Your task to perform on an android device: open app "Google Find My Device" Image 0: 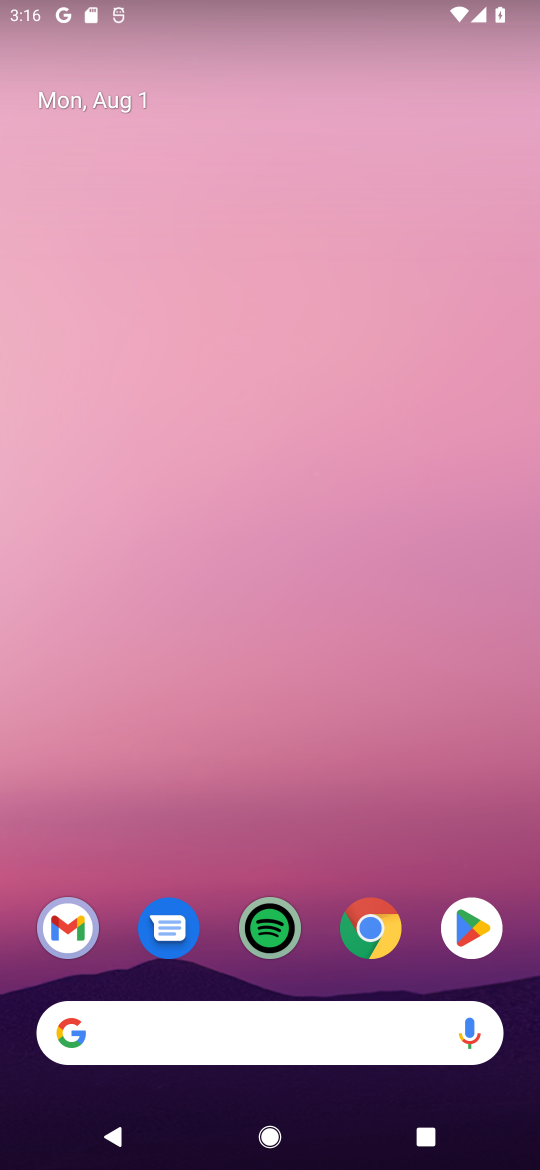
Step 0: press home button
Your task to perform on an android device: open app "Google Find My Device" Image 1: 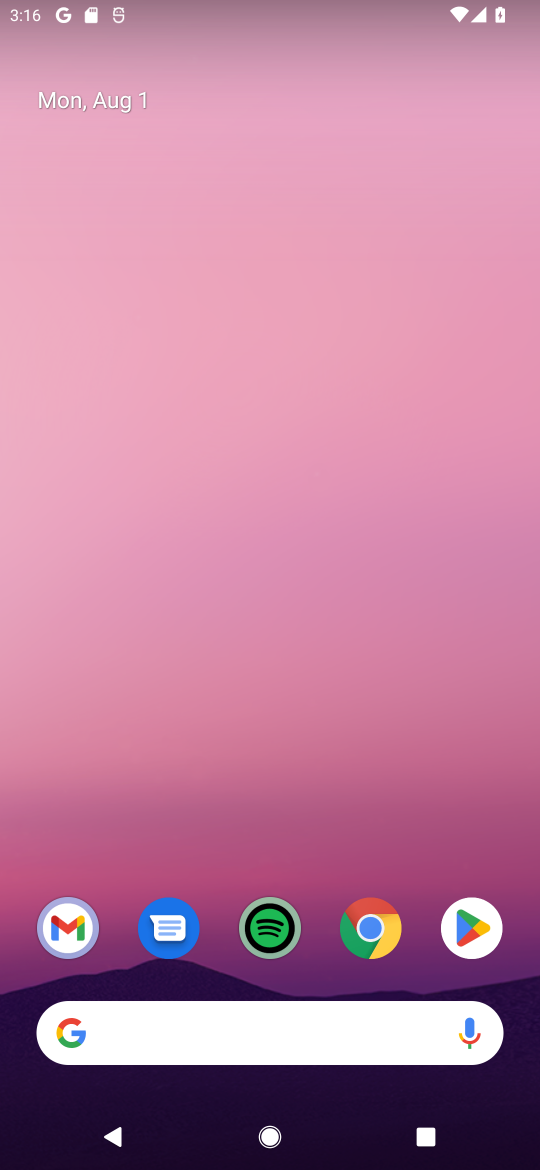
Step 1: click (457, 936)
Your task to perform on an android device: open app "Google Find My Device" Image 2: 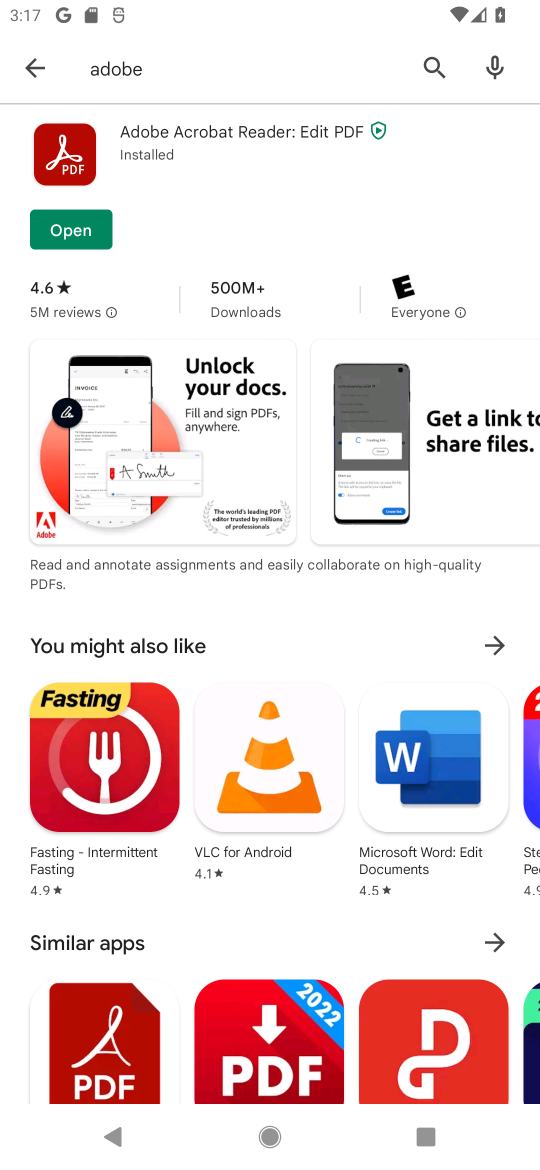
Step 2: click (439, 61)
Your task to perform on an android device: open app "Google Find My Device" Image 3: 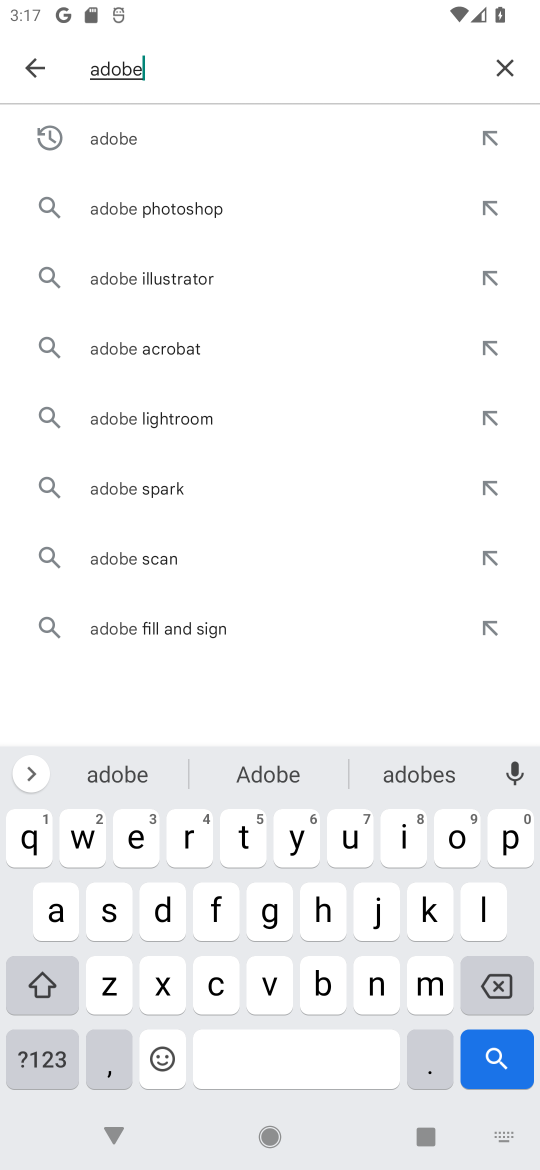
Step 3: click (516, 68)
Your task to perform on an android device: open app "Google Find My Device" Image 4: 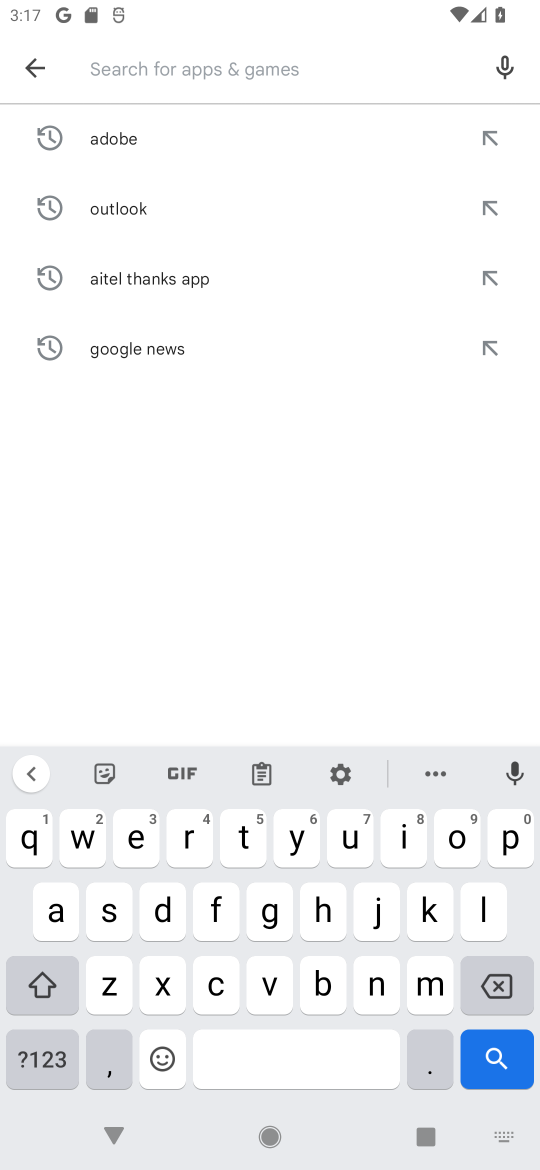
Step 4: click (218, 908)
Your task to perform on an android device: open app "Google Find My Device" Image 5: 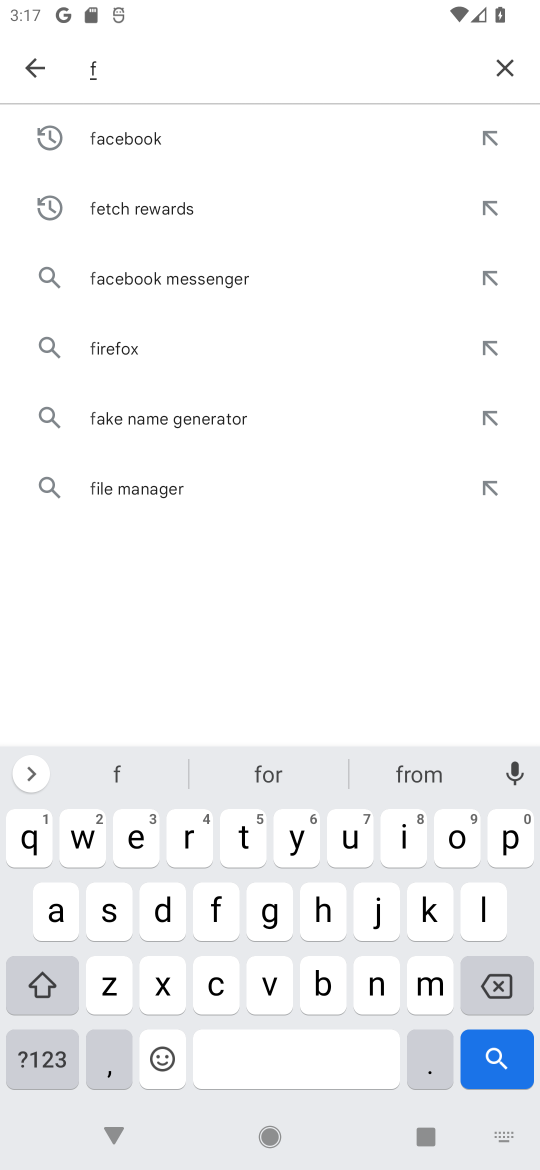
Step 5: click (399, 850)
Your task to perform on an android device: open app "Google Find My Device" Image 6: 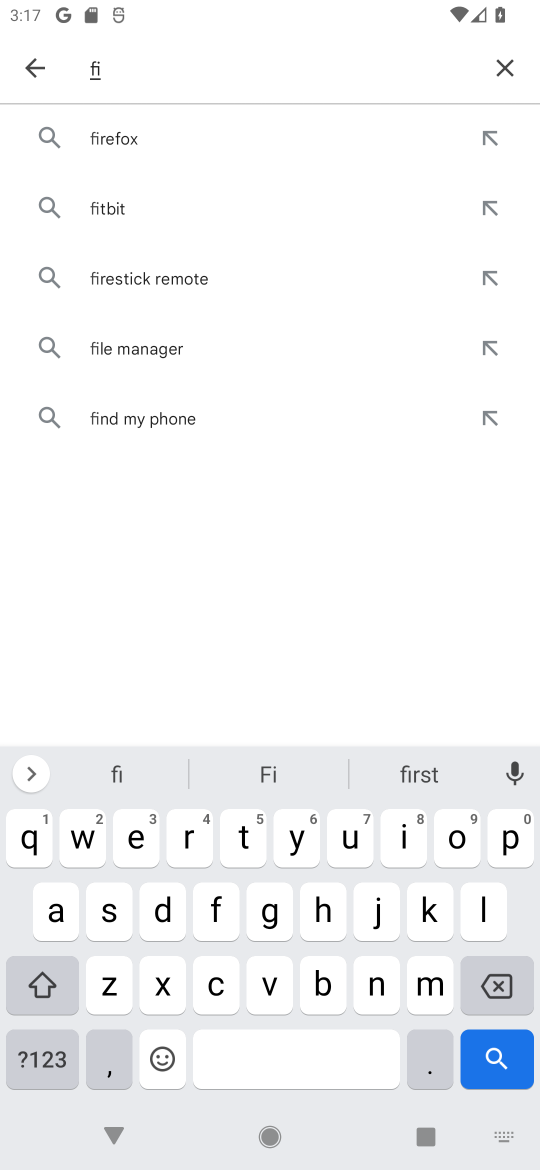
Step 6: click (370, 992)
Your task to perform on an android device: open app "Google Find My Device" Image 7: 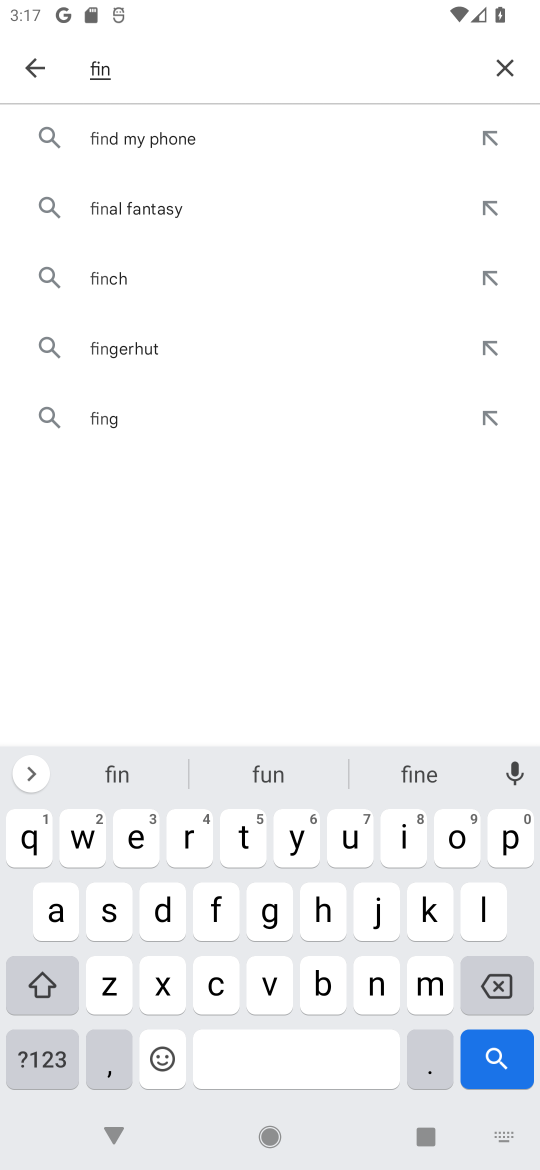
Step 7: click (159, 899)
Your task to perform on an android device: open app "Google Find My Device" Image 8: 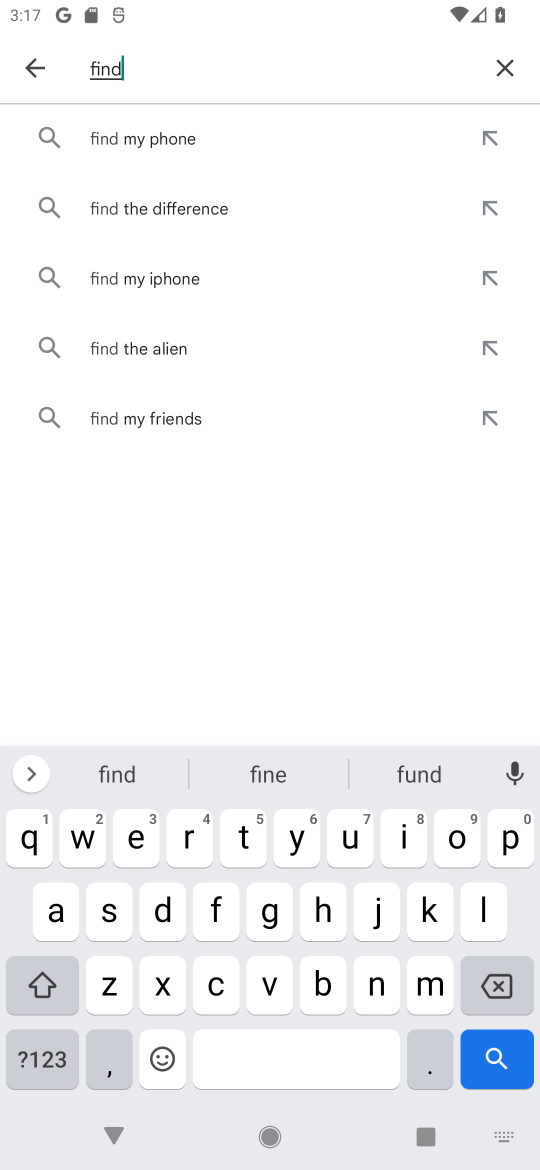
Step 8: click (114, 775)
Your task to perform on an android device: open app "Google Find My Device" Image 9: 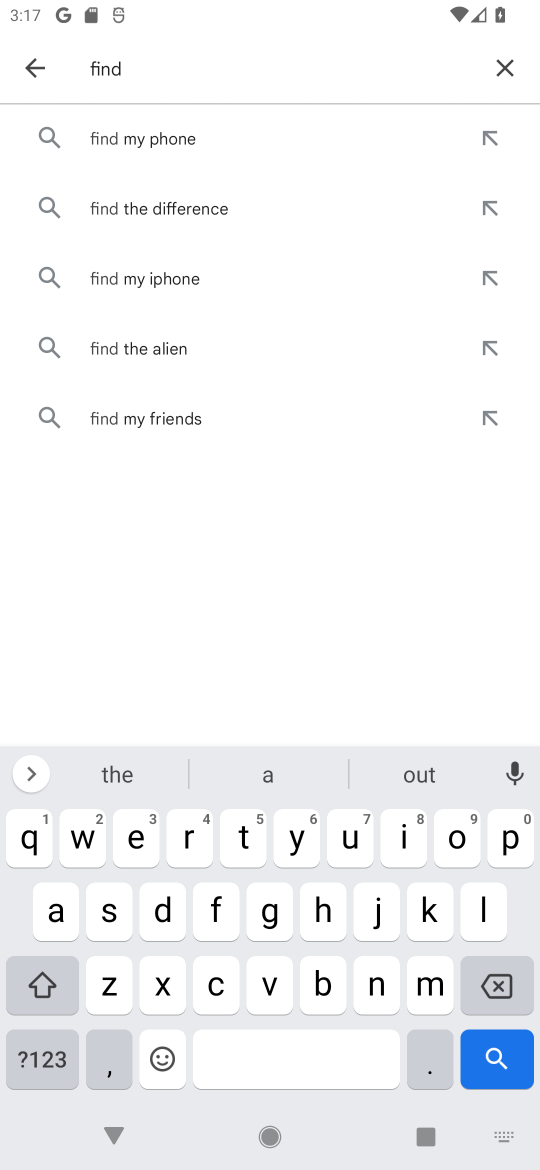
Step 9: click (410, 994)
Your task to perform on an android device: open app "Google Find My Device" Image 10: 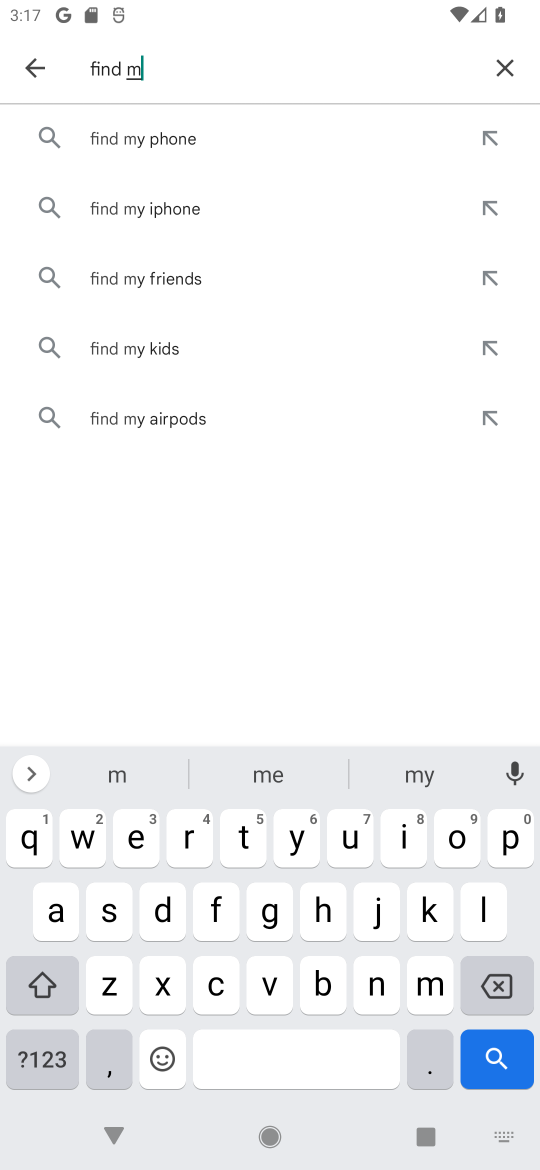
Step 10: click (410, 778)
Your task to perform on an android device: open app "Google Find My Device" Image 11: 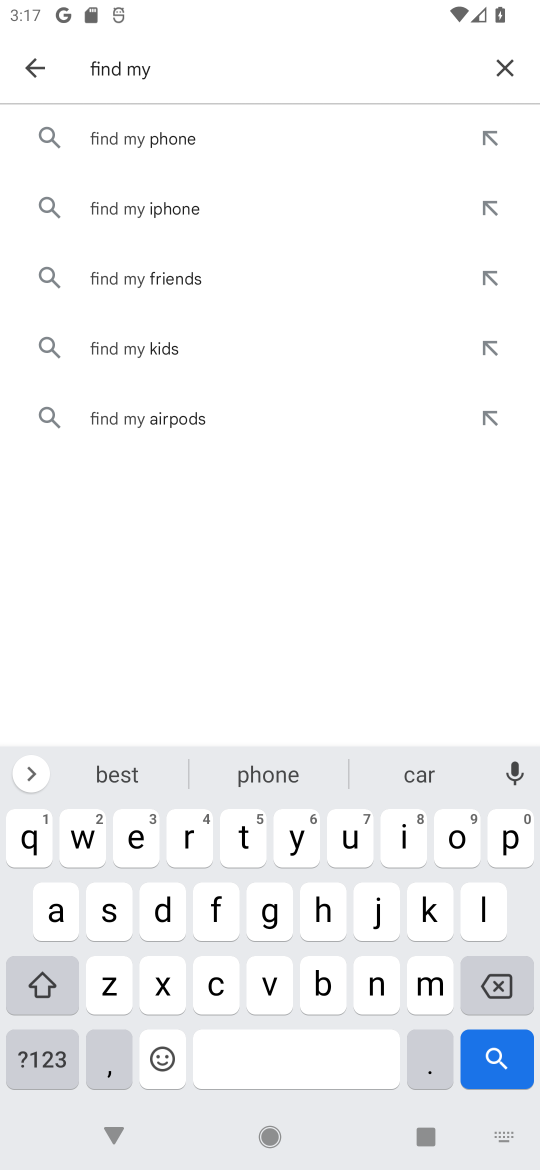
Step 11: click (161, 912)
Your task to perform on an android device: open app "Google Find My Device" Image 12: 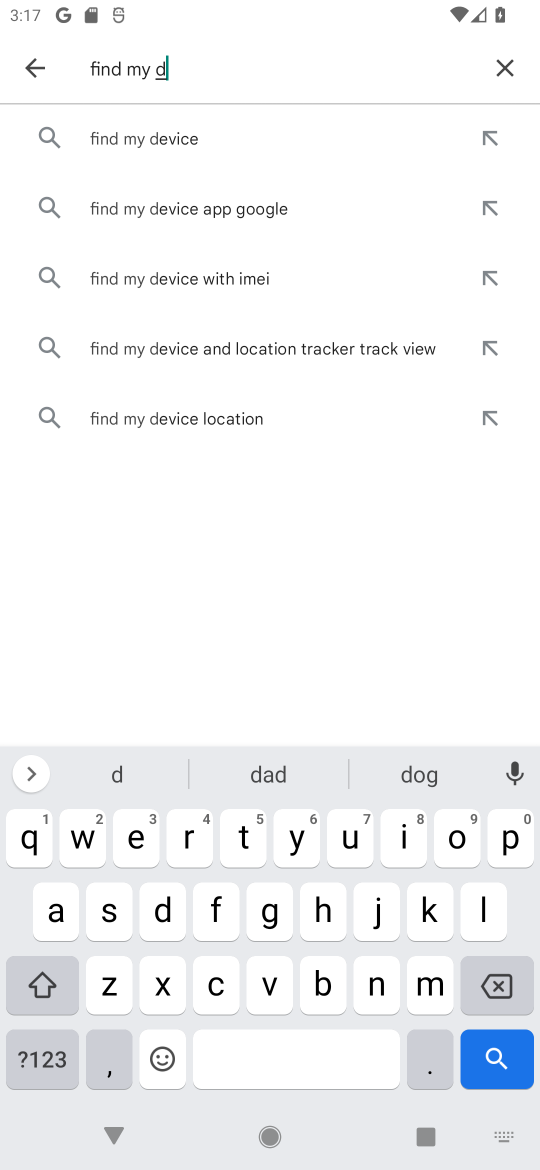
Step 12: click (144, 145)
Your task to perform on an android device: open app "Google Find My Device" Image 13: 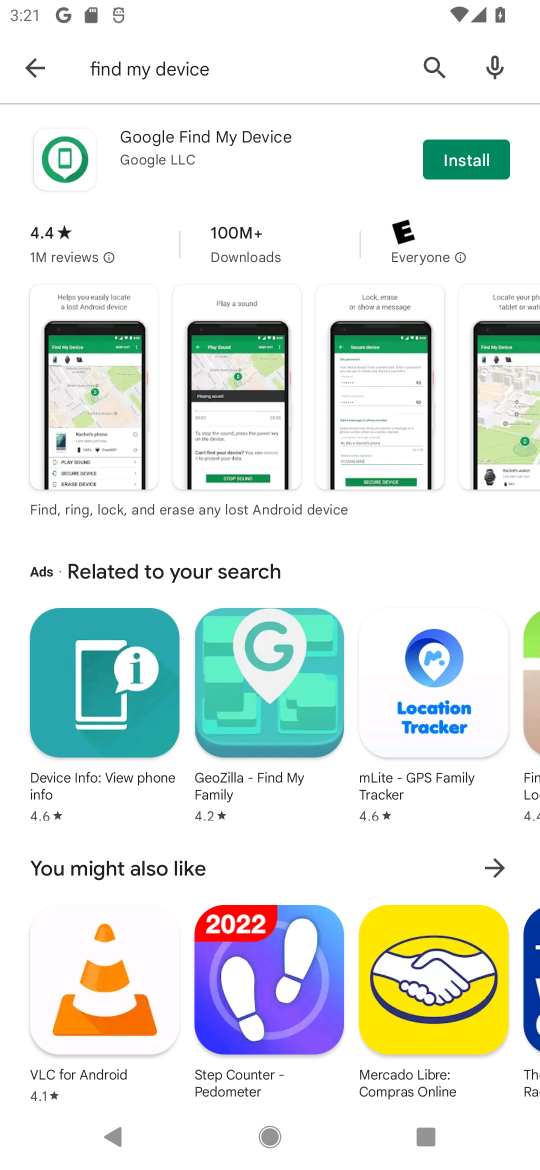
Step 13: task complete